Your task to perform on an android device: toggle data saver in the chrome app Image 0: 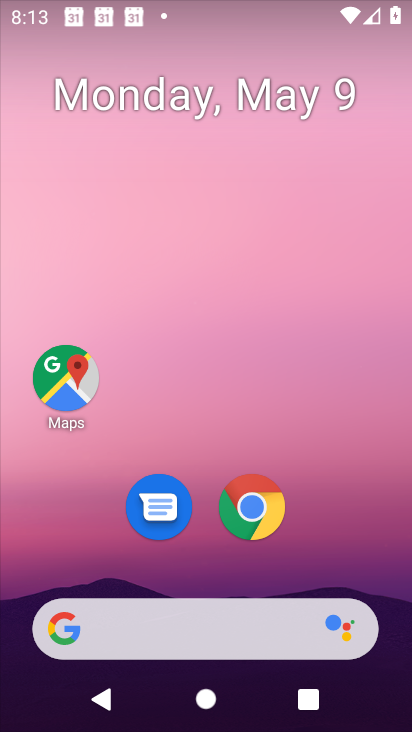
Step 0: click (253, 519)
Your task to perform on an android device: toggle data saver in the chrome app Image 1: 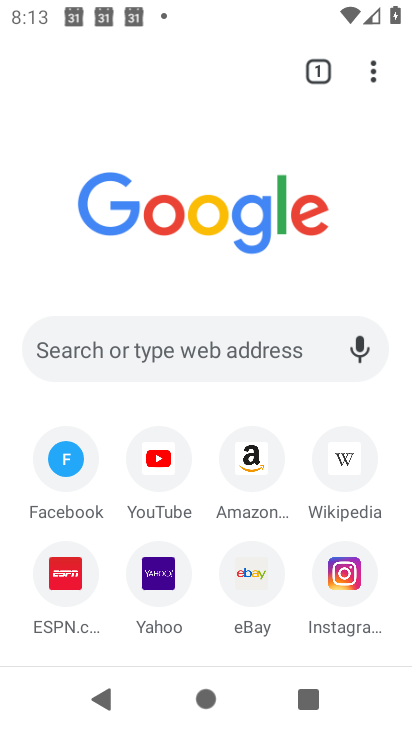
Step 1: click (373, 71)
Your task to perform on an android device: toggle data saver in the chrome app Image 2: 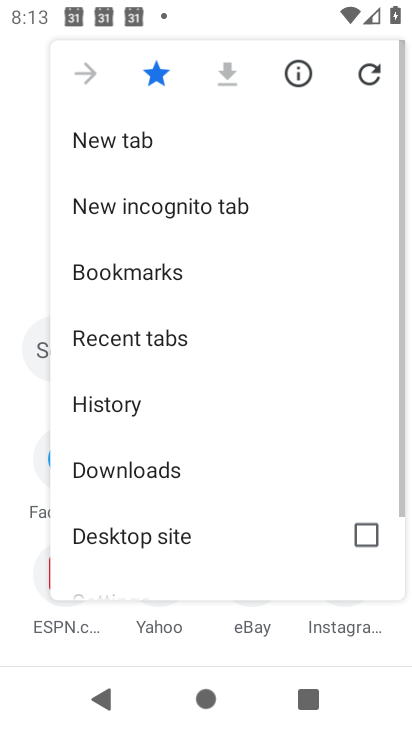
Step 2: drag from (193, 503) to (142, 169)
Your task to perform on an android device: toggle data saver in the chrome app Image 3: 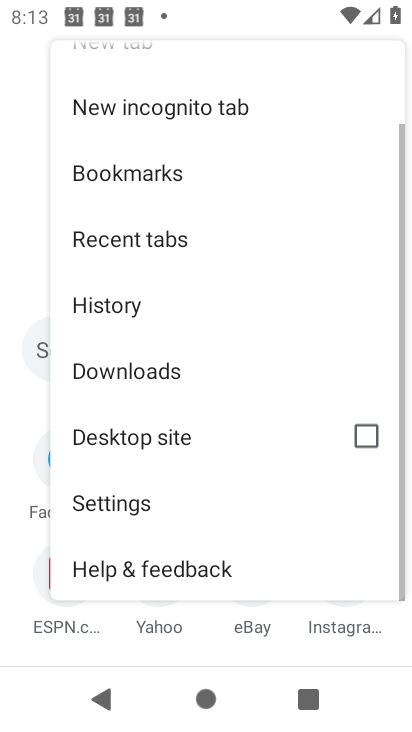
Step 3: click (96, 499)
Your task to perform on an android device: toggle data saver in the chrome app Image 4: 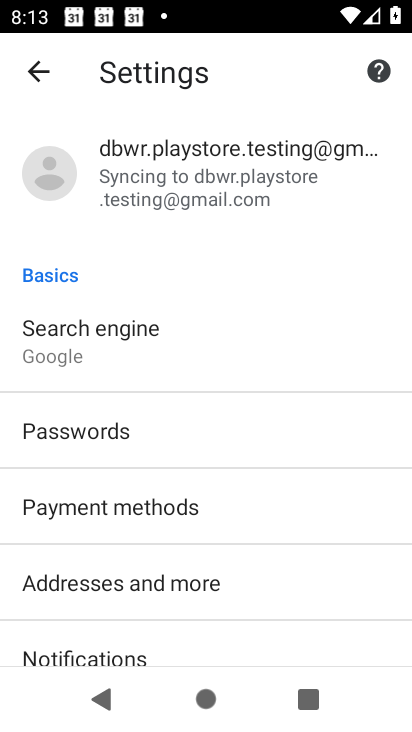
Step 4: drag from (144, 532) to (125, 147)
Your task to perform on an android device: toggle data saver in the chrome app Image 5: 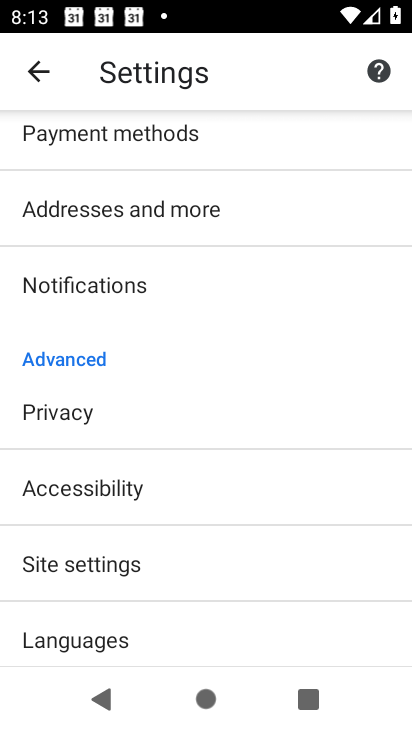
Step 5: click (99, 580)
Your task to perform on an android device: toggle data saver in the chrome app Image 6: 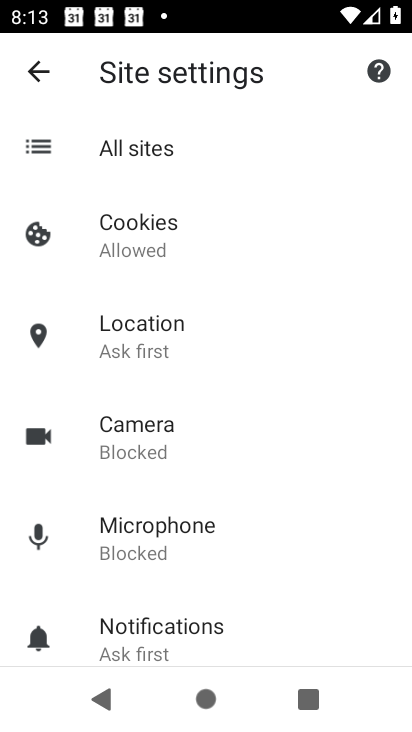
Step 6: click (29, 72)
Your task to perform on an android device: toggle data saver in the chrome app Image 7: 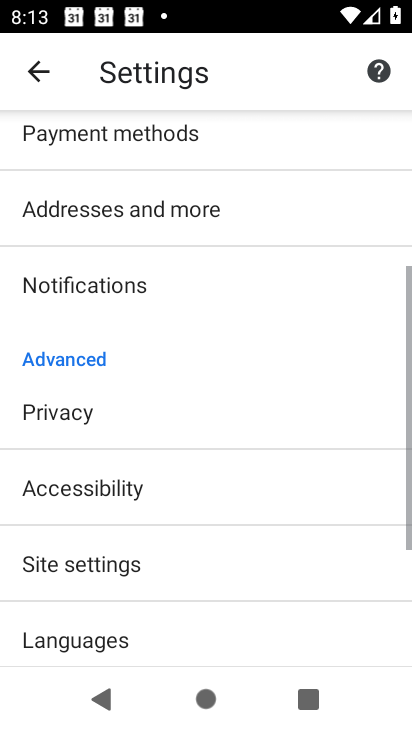
Step 7: drag from (126, 489) to (137, 240)
Your task to perform on an android device: toggle data saver in the chrome app Image 8: 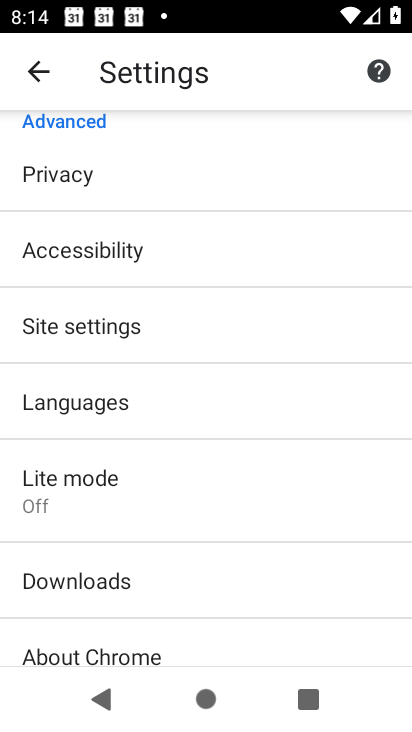
Step 8: click (88, 488)
Your task to perform on an android device: toggle data saver in the chrome app Image 9: 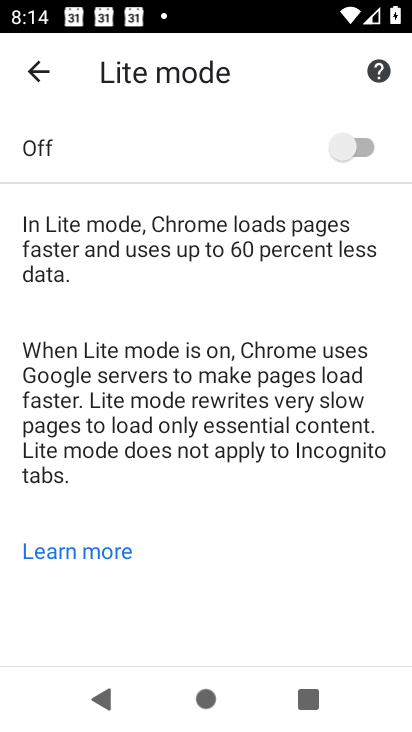
Step 9: click (344, 132)
Your task to perform on an android device: toggle data saver in the chrome app Image 10: 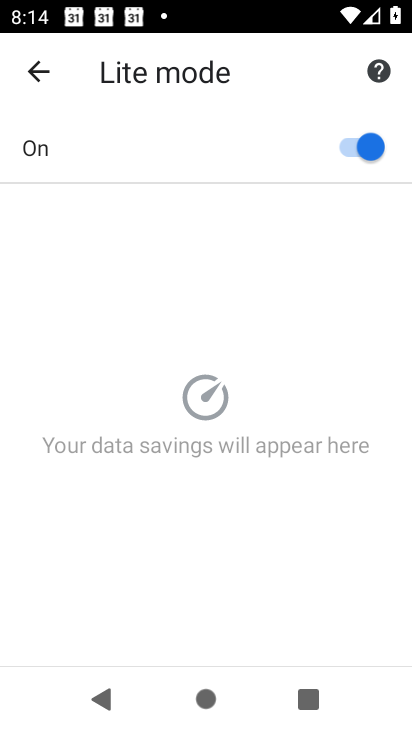
Step 10: task complete